Your task to perform on an android device: Check the weather Image 0: 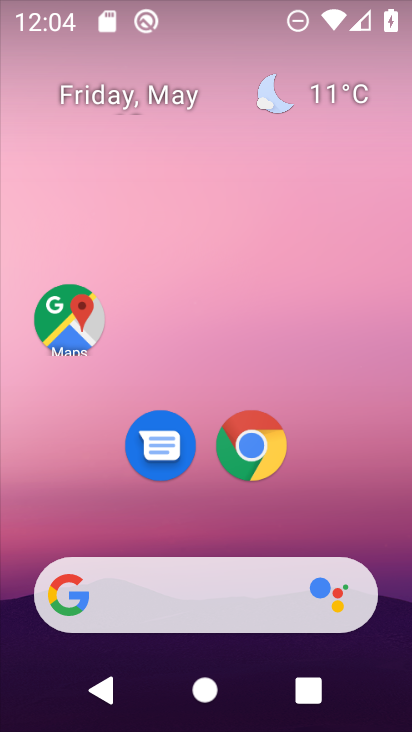
Step 0: click (324, 97)
Your task to perform on an android device: Check the weather Image 1: 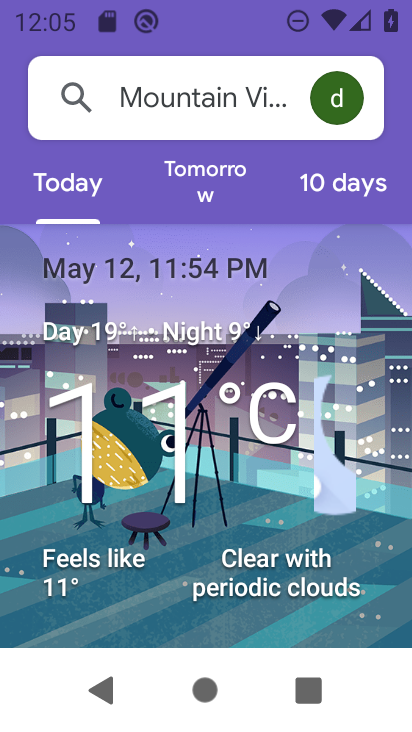
Step 1: task complete